Your task to perform on an android device: Clear all items from cart on ebay. Add "usb-b" to the cart on ebay, then select checkout. Image 0: 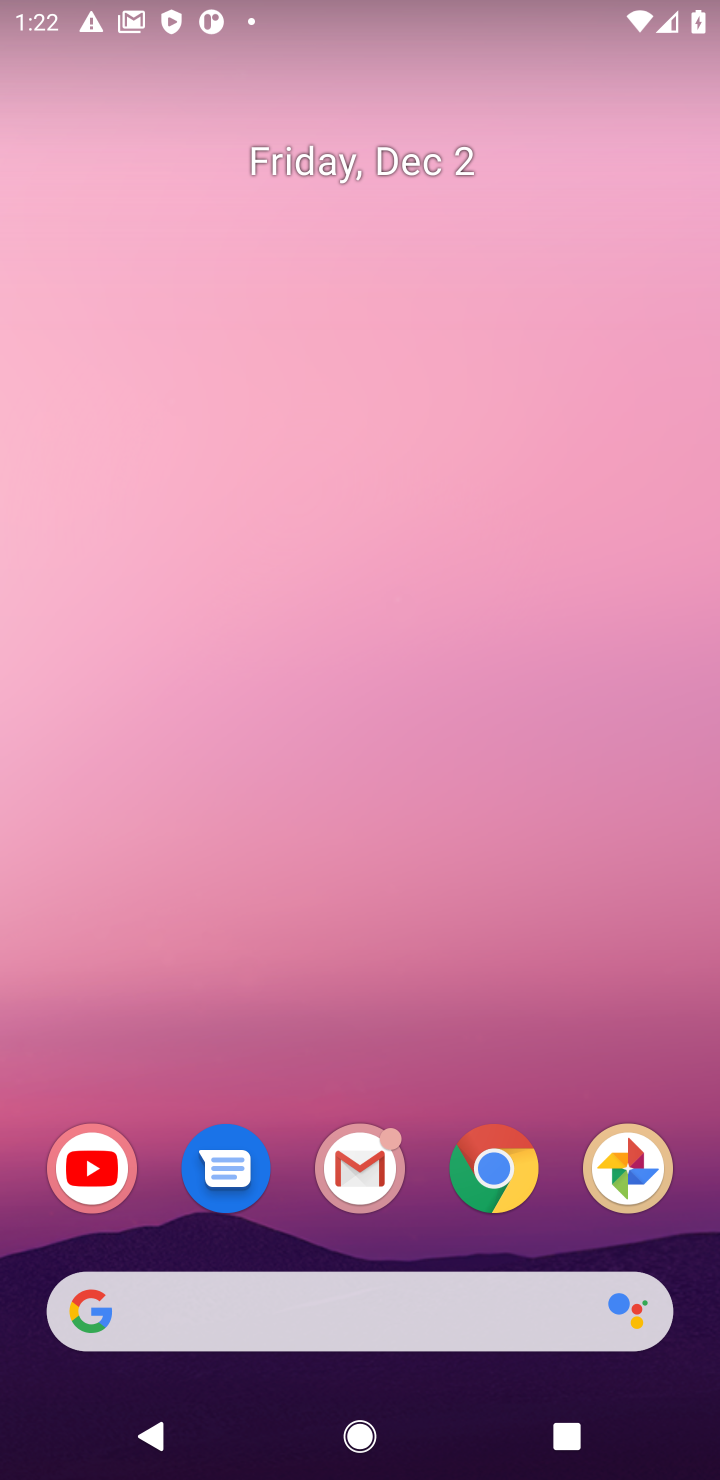
Step 0: click (494, 1180)
Your task to perform on an android device: Clear all items from cart on ebay. Add "usb-b" to the cart on ebay, then select checkout. Image 1: 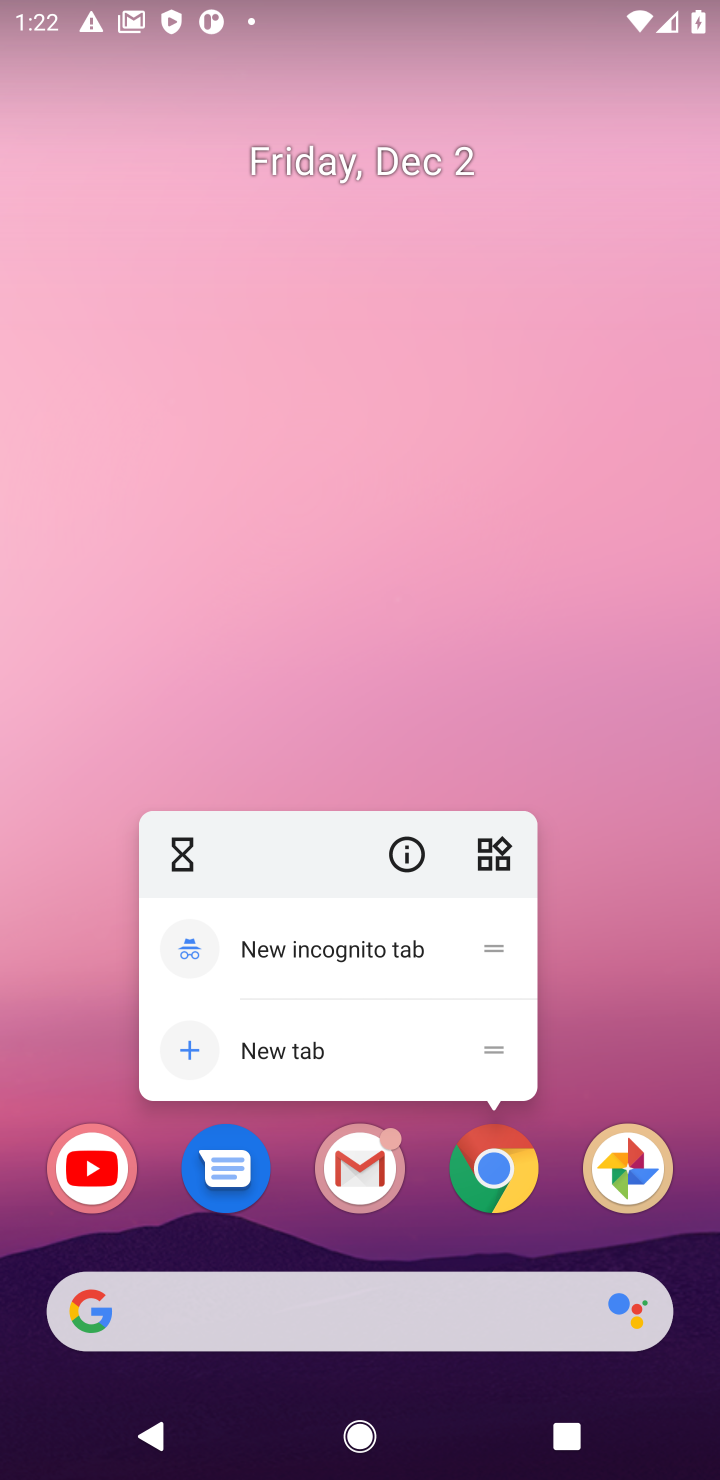
Step 1: click (494, 1180)
Your task to perform on an android device: Clear all items from cart on ebay. Add "usb-b" to the cart on ebay, then select checkout. Image 2: 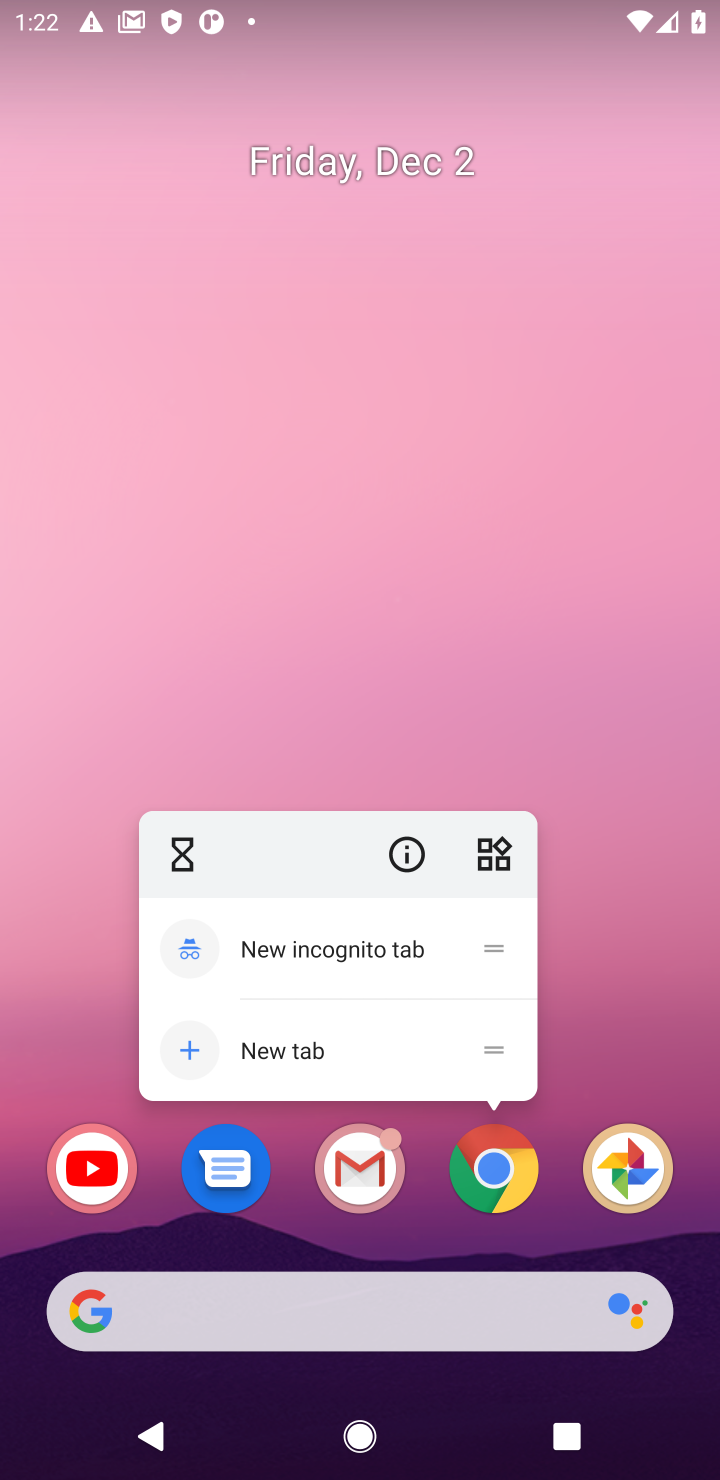
Step 2: click (494, 1180)
Your task to perform on an android device: Clear all items from cart on ebay. Add "usb-b" to the cart on ebay, then select checkout. Image 3: 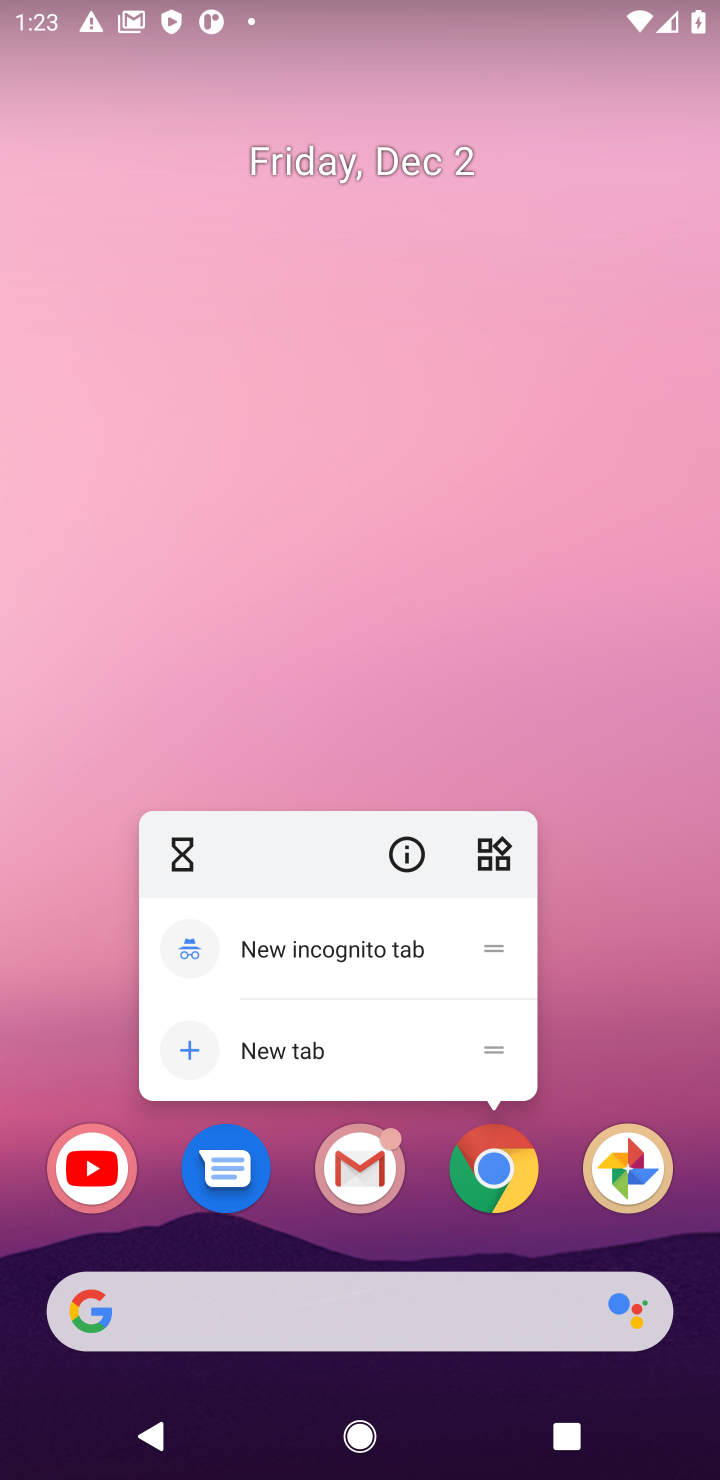
Step 3: click (655, 1067)
Your task to perform on an android device: Clear all items from cart on ebay. Add "usb-b" to the cart on ebay, then select checkout. Image 4: 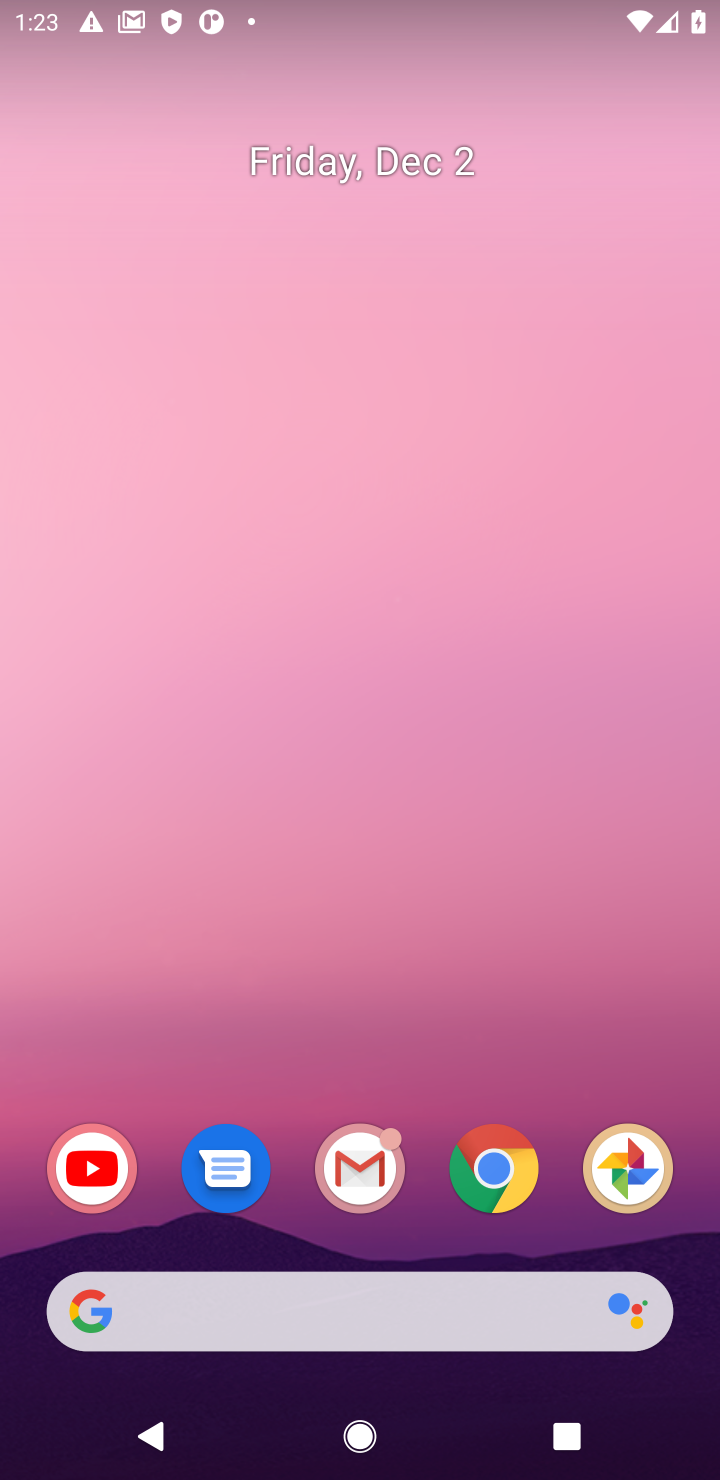
Step 4: click (504, 1164)
Your task to perform on an android device: Clear all items from cart on ebay. Add "usb-b" to the cart on ebay, then select checkout. Image 5: 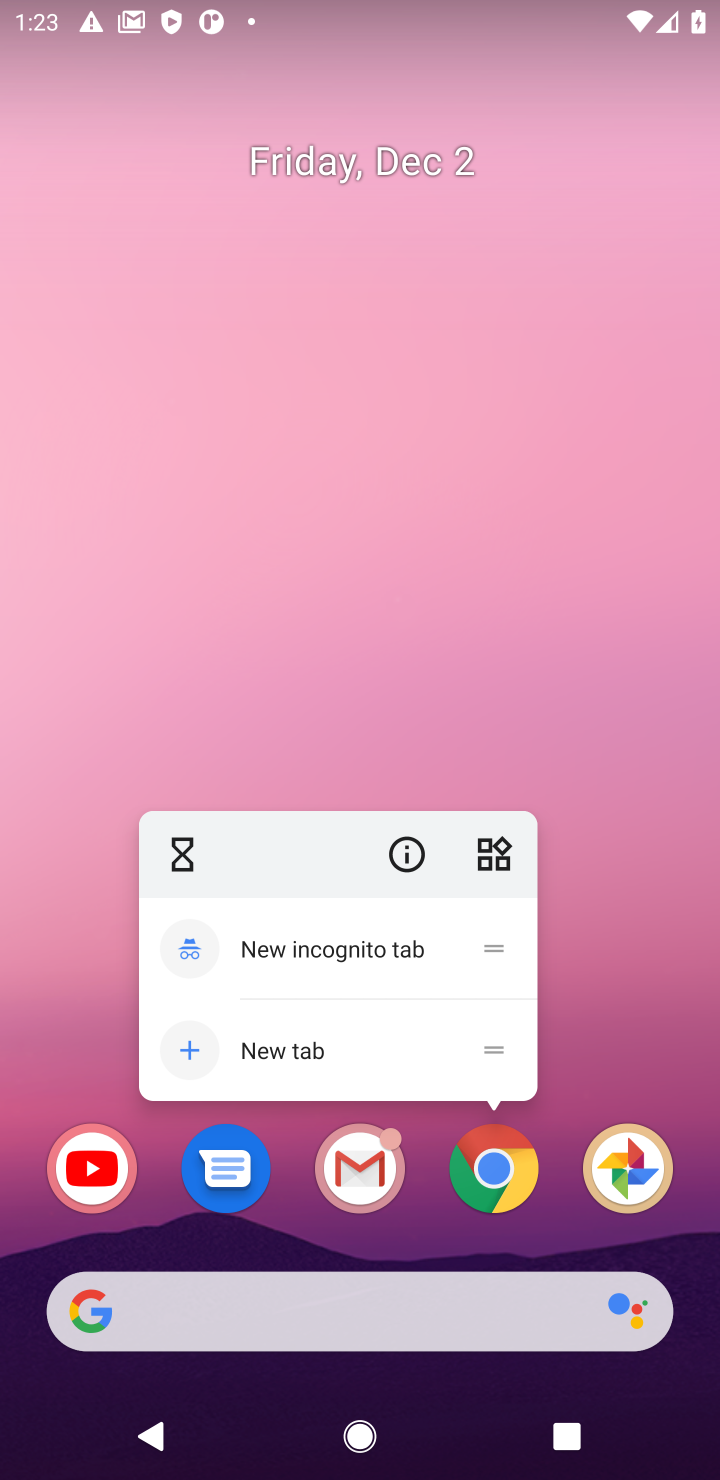
Step 5: click (504, 1164)
Your task to perform on an android device: Clear all items from cart on ebay. Add "usb-b" to the cart on ebay, then select checkout. Image 6: 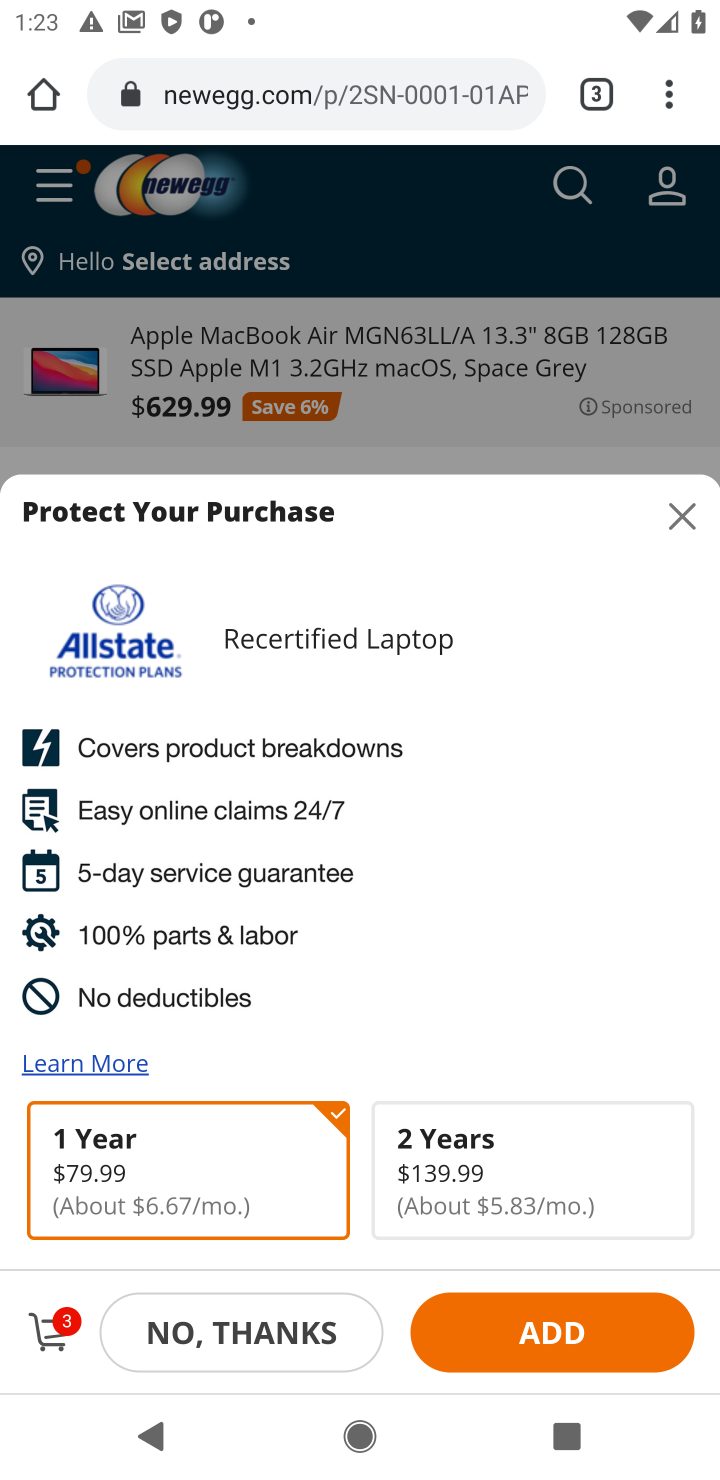
Step 6: click (283, 99)
Your task to perform on an android device: Clear all items from cart on ebay. Add "usb-b" to the cart on ebay, then select checkout. Image 7: 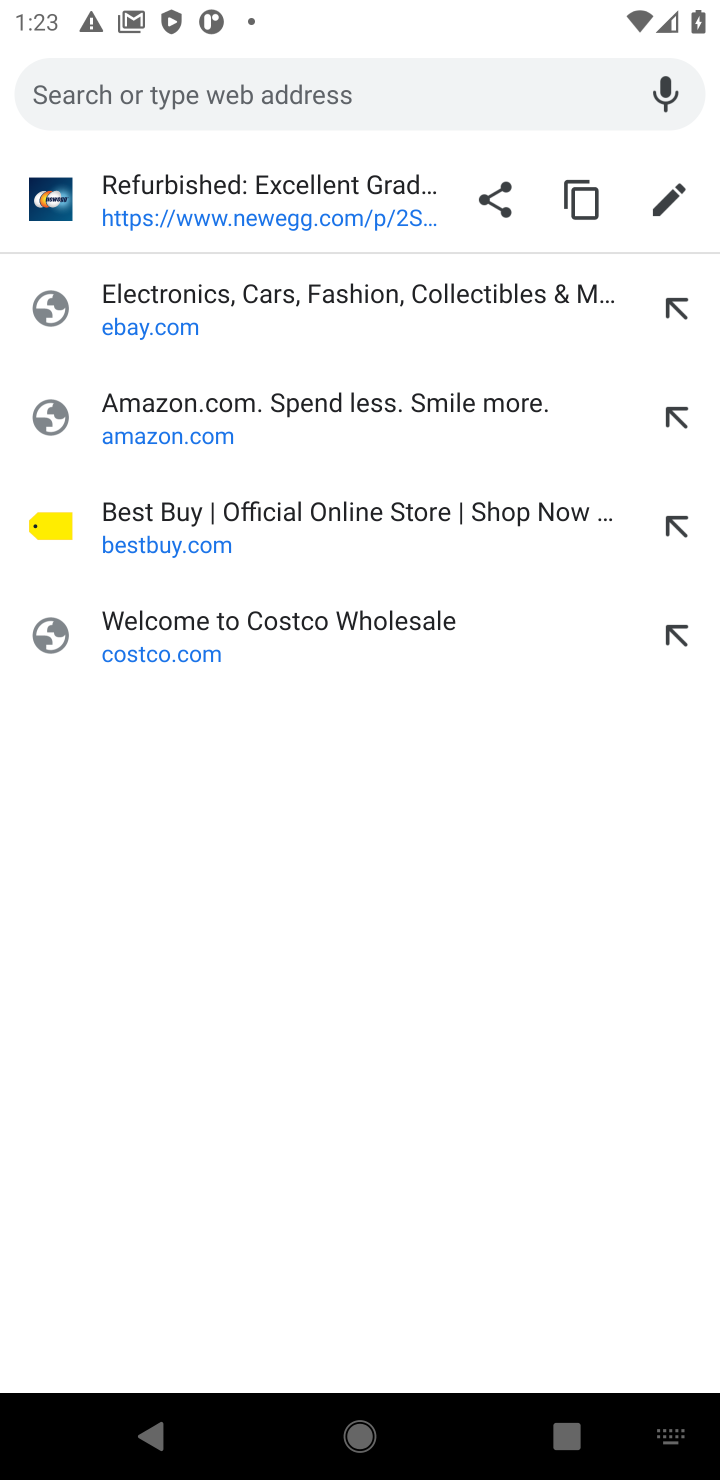
Step 7: click (157, 325)
Your task to perform on an android device: Clear all items from cart on ebay. Add "usb-b" to the cart on ebay, then select checkout. Image 8: 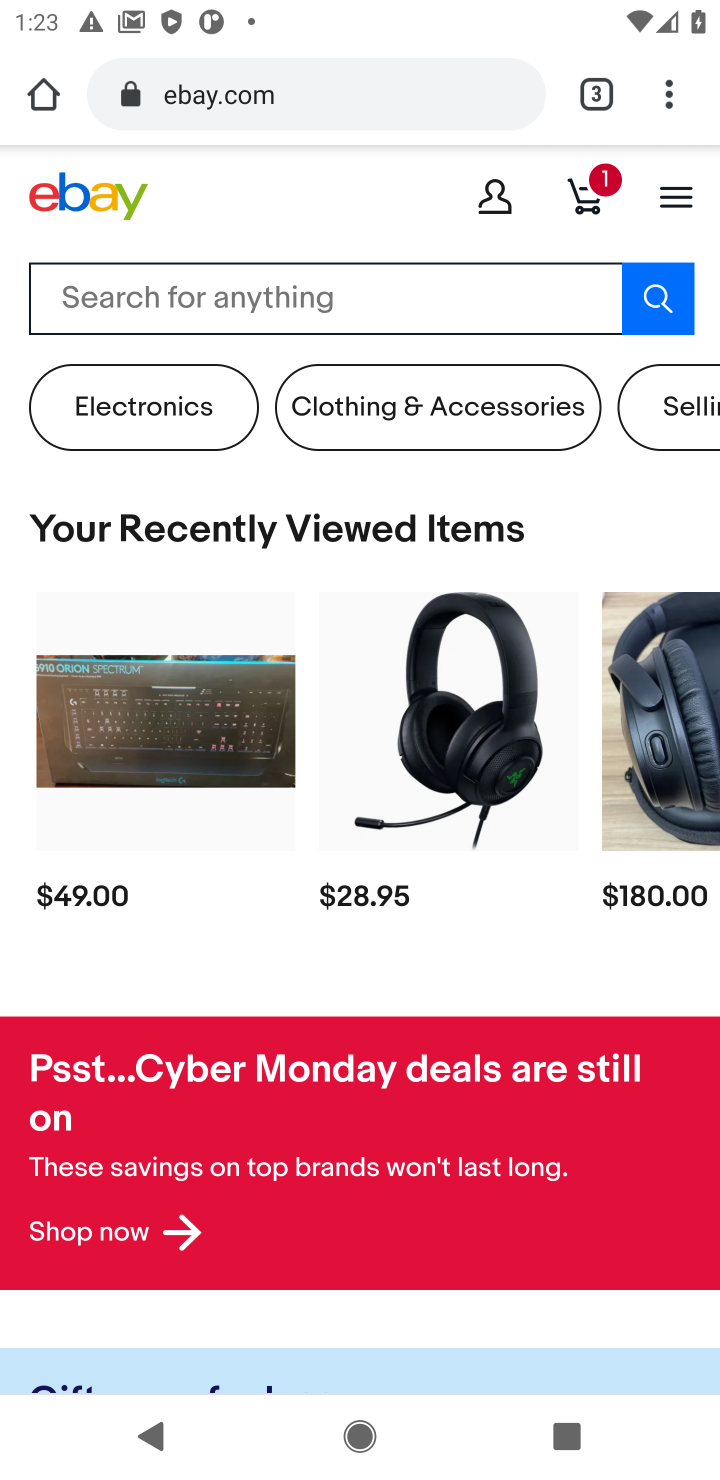
Step 8: click (592, 191)
Your task to perform on an android device: Clear all items from cart on ebay. Add "usb-b" to the cart on ebay, then select checkout. Image 9: 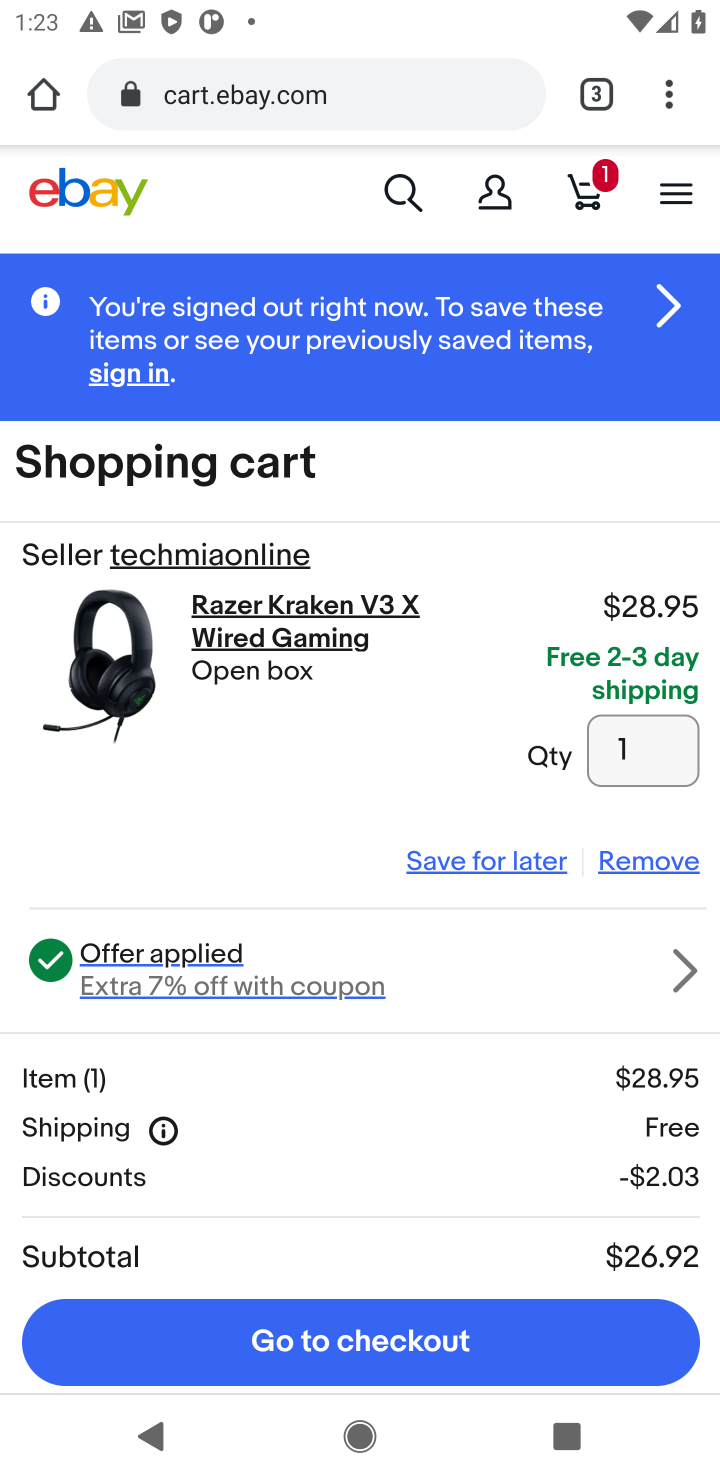
Step 9: click (628, 864)
Your task to perform on an android device: Clear all items from cart on ebay. Add "usb-b" to the cart on ebay, then select checkout. Image 10: 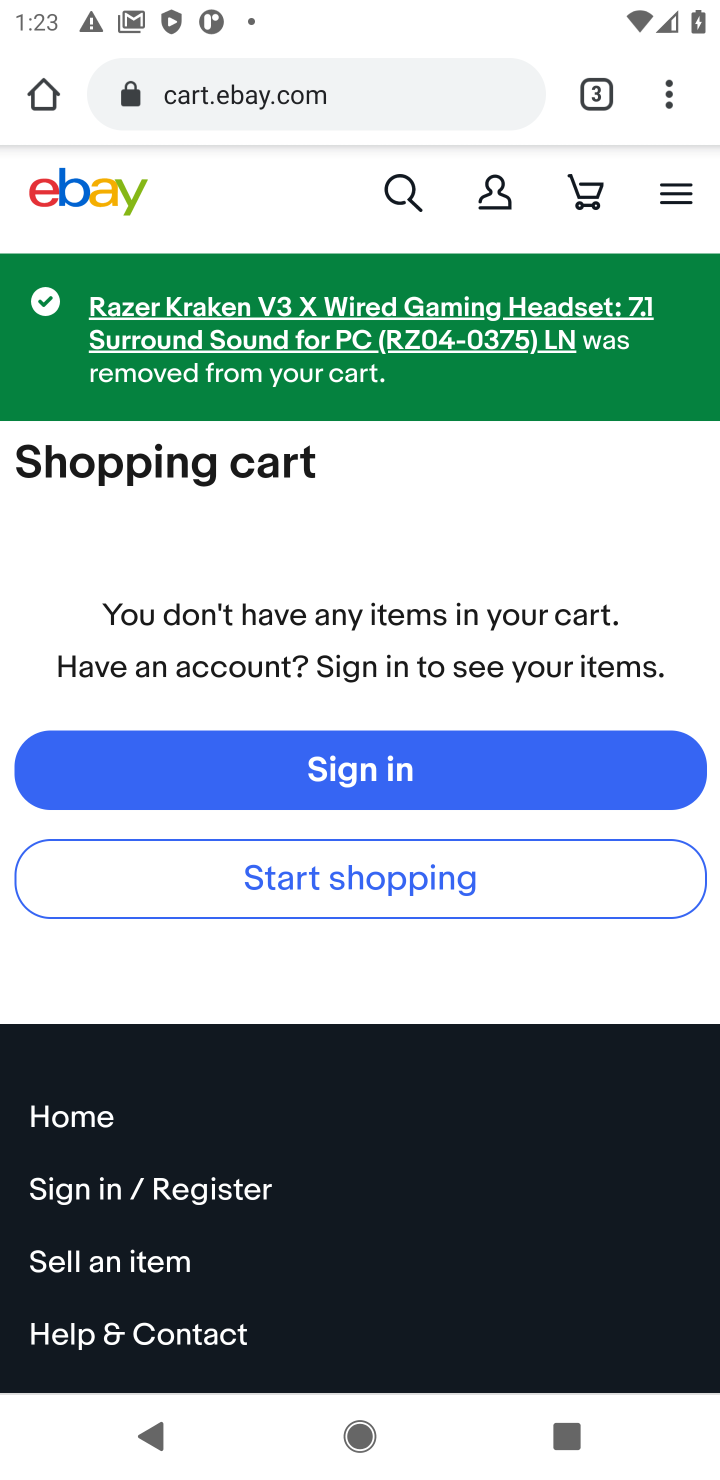
Step 10: click (398, 185)
Your task to perform on an android device: Clear all items from cart on ebay. Add "usb-b" to the cart on ebay, then select checkout. Image 11: 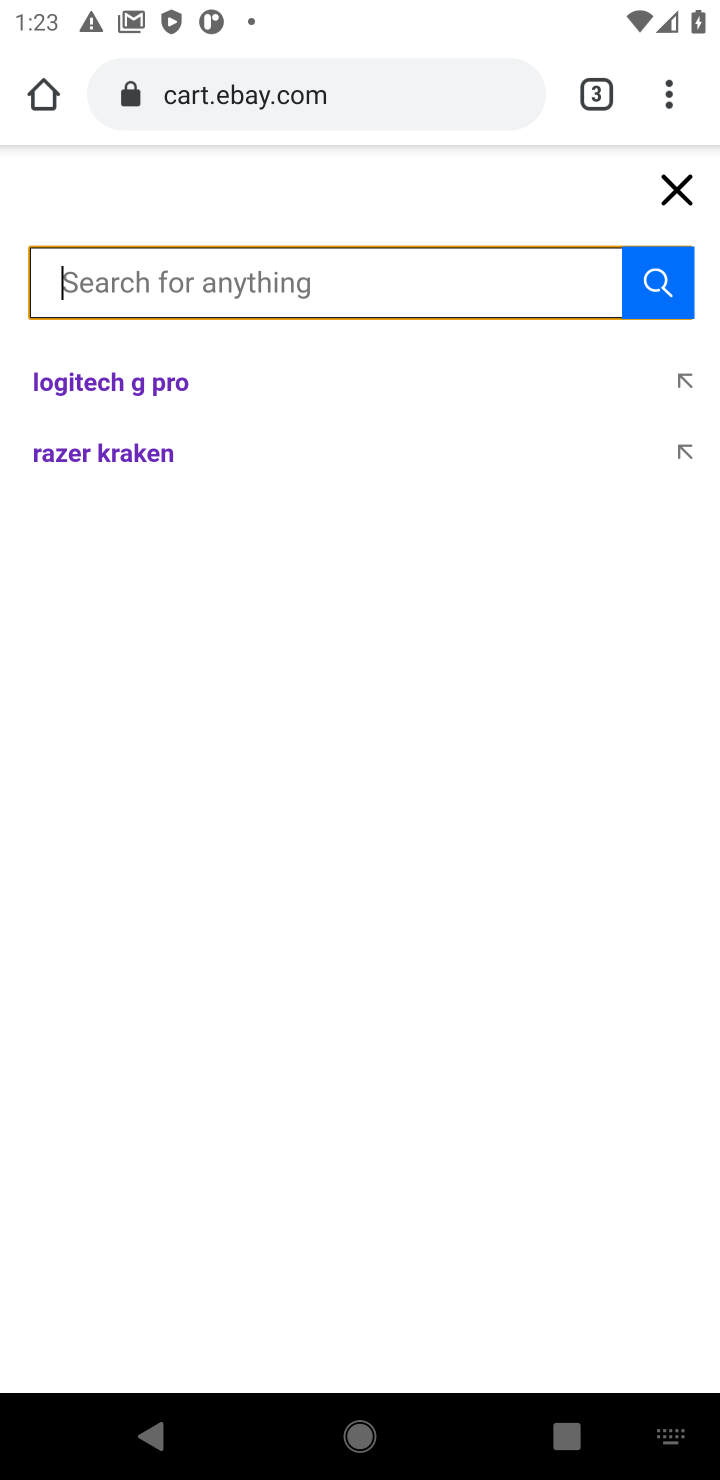
Step 11: type "usb-b"
Your task to perform on an android device: Clear all items from cart on ebay. Add "usb-b" to the cart on ebay, then select checkout. Image 12: 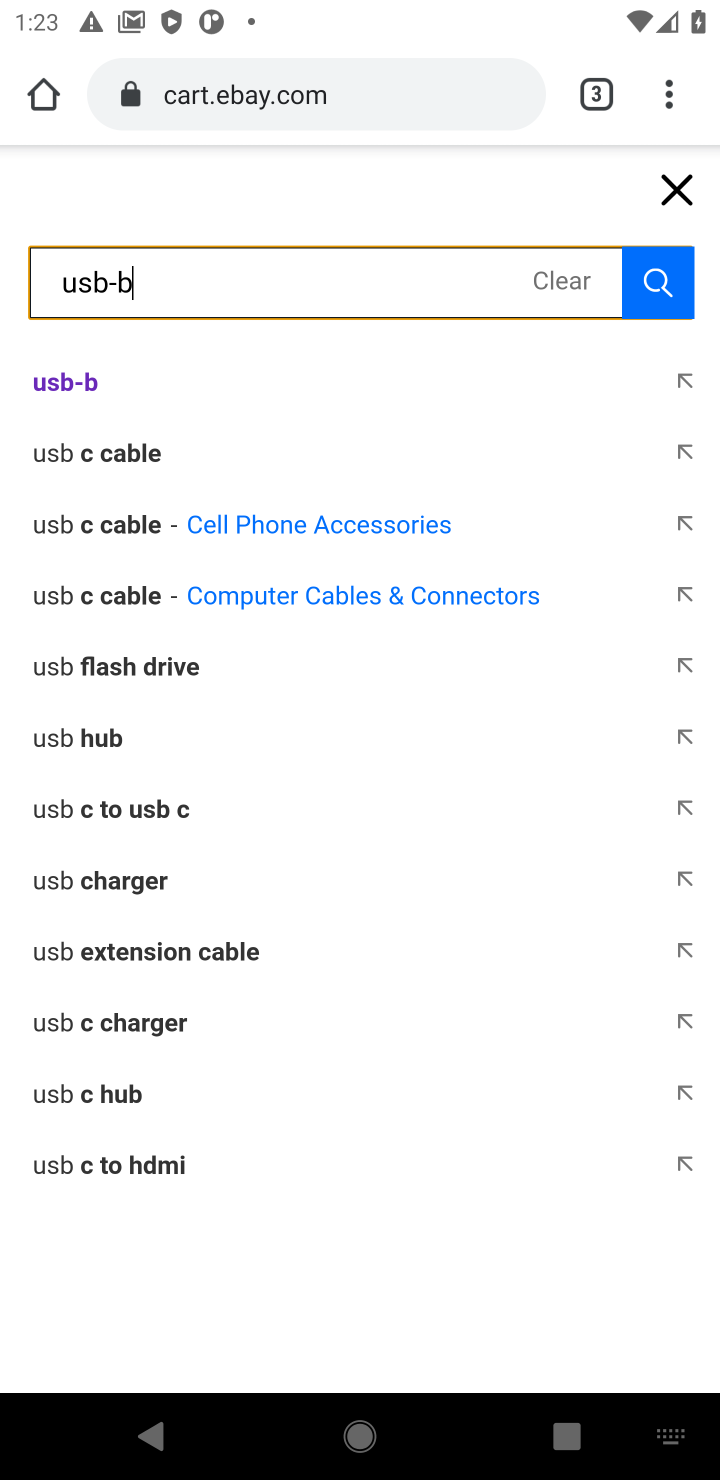
Step 12: click (76, 386)
Your task to perform on an android device: Clear all items from cart on ebay. Add "usb-b" to the cart on ebay, then select checkout. Image 13: 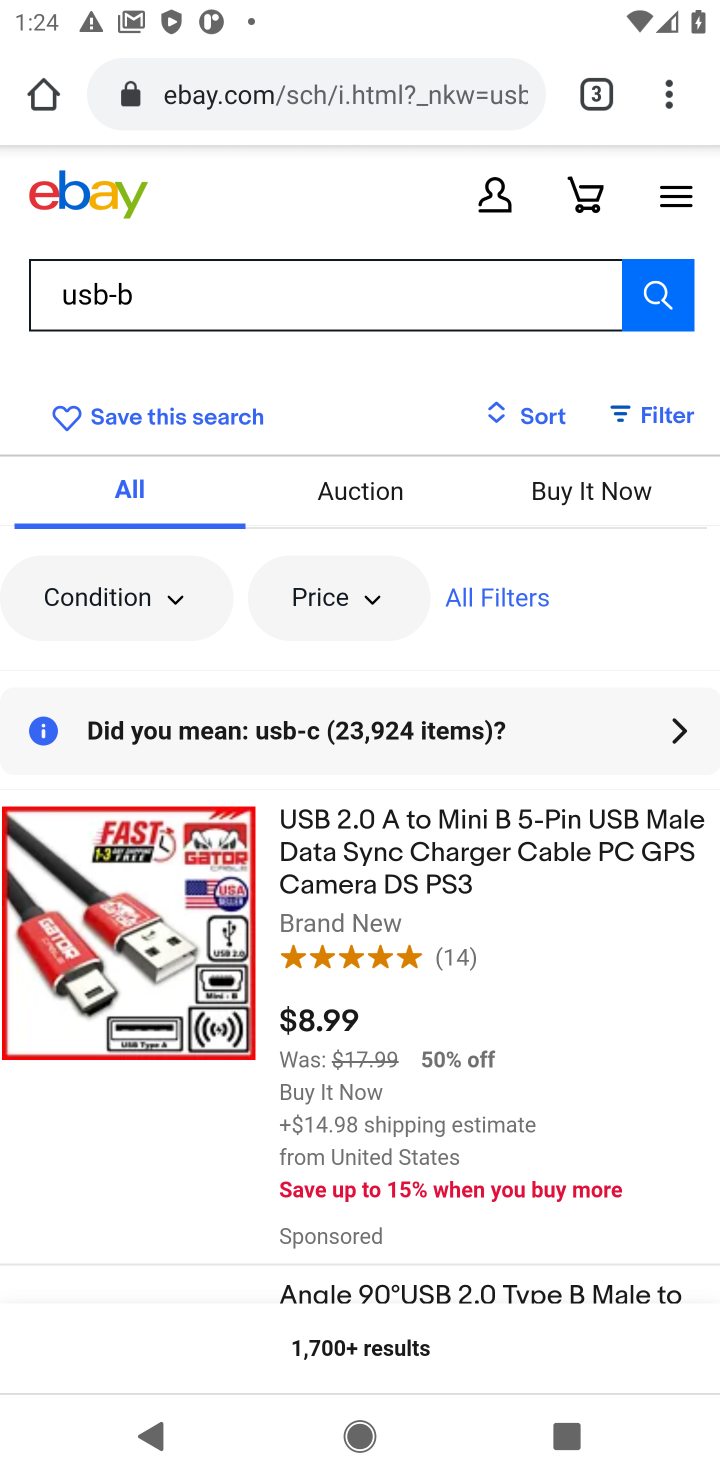
Step 13: drag from (389, 1026) to (407, 762)
Your task to perform on an android device: Clear all items from cart on ebay. Add "usb-b" to the cart on ebay, then select checkout. Image 14: 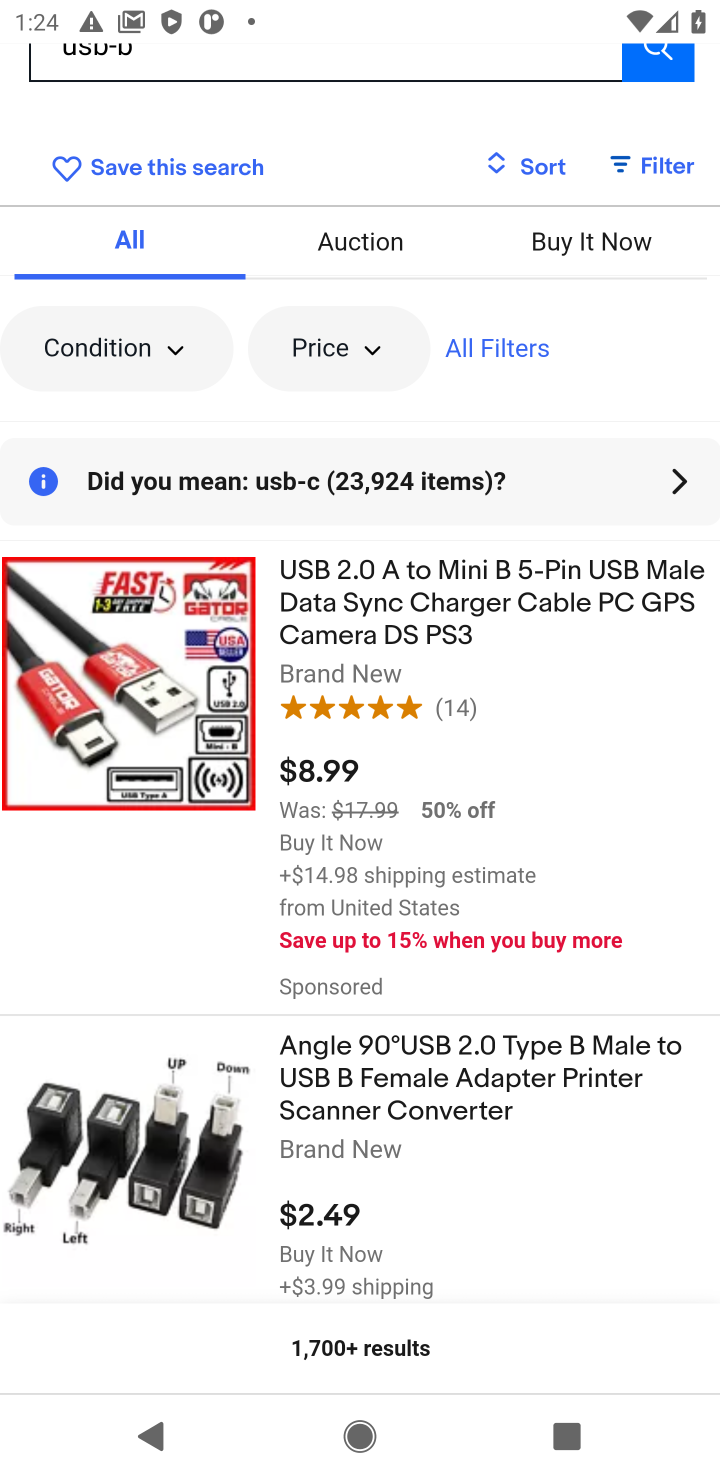
Step 14: click (369, 585)
Your task to perform on an android device: Clear all items from cart on ebay. Add "usb-b" to the cart on ebay, then select checkout. Image 15: 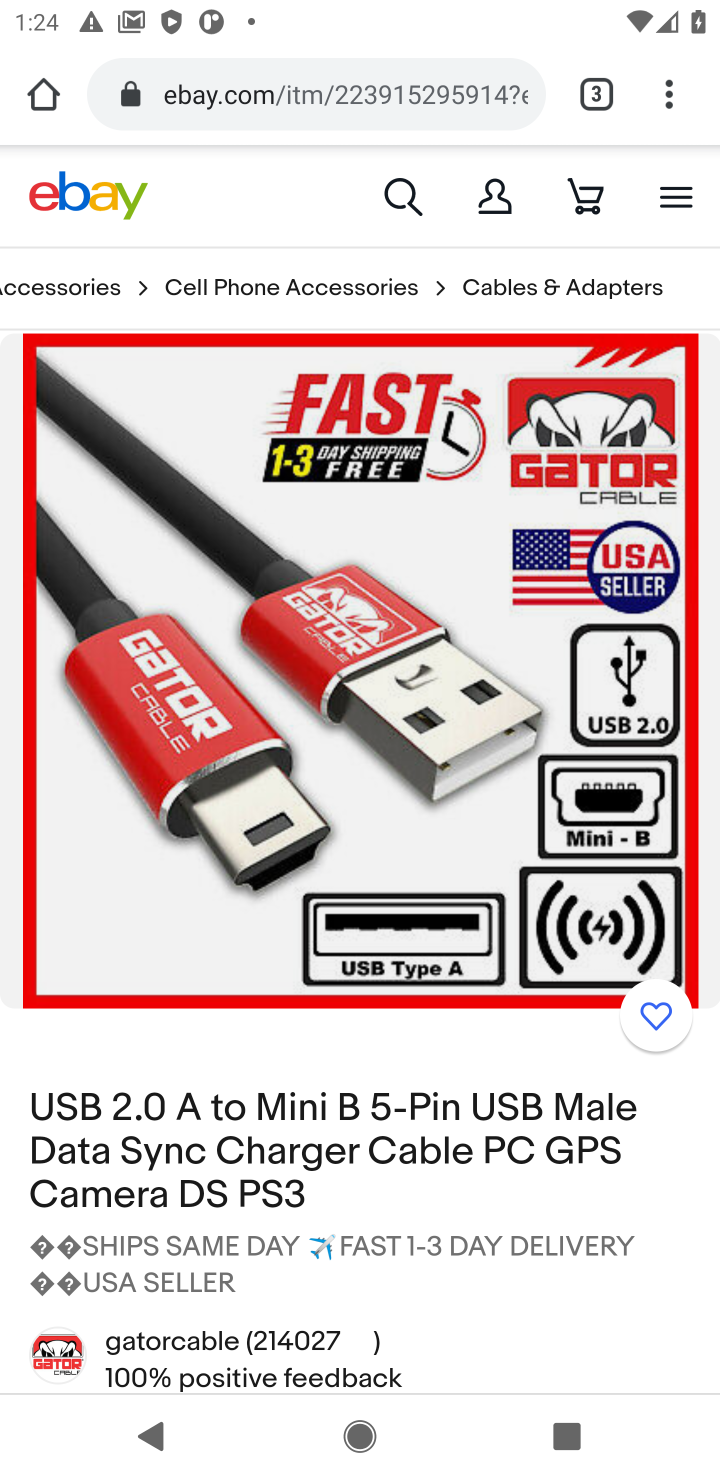
Step 15: drag from (391, 956) to (385, 553)
Your task to perform on an android device: Clear all items from cart on ebay. Add "usb-b" to the cart on ebay, then select checkout. Image 16: 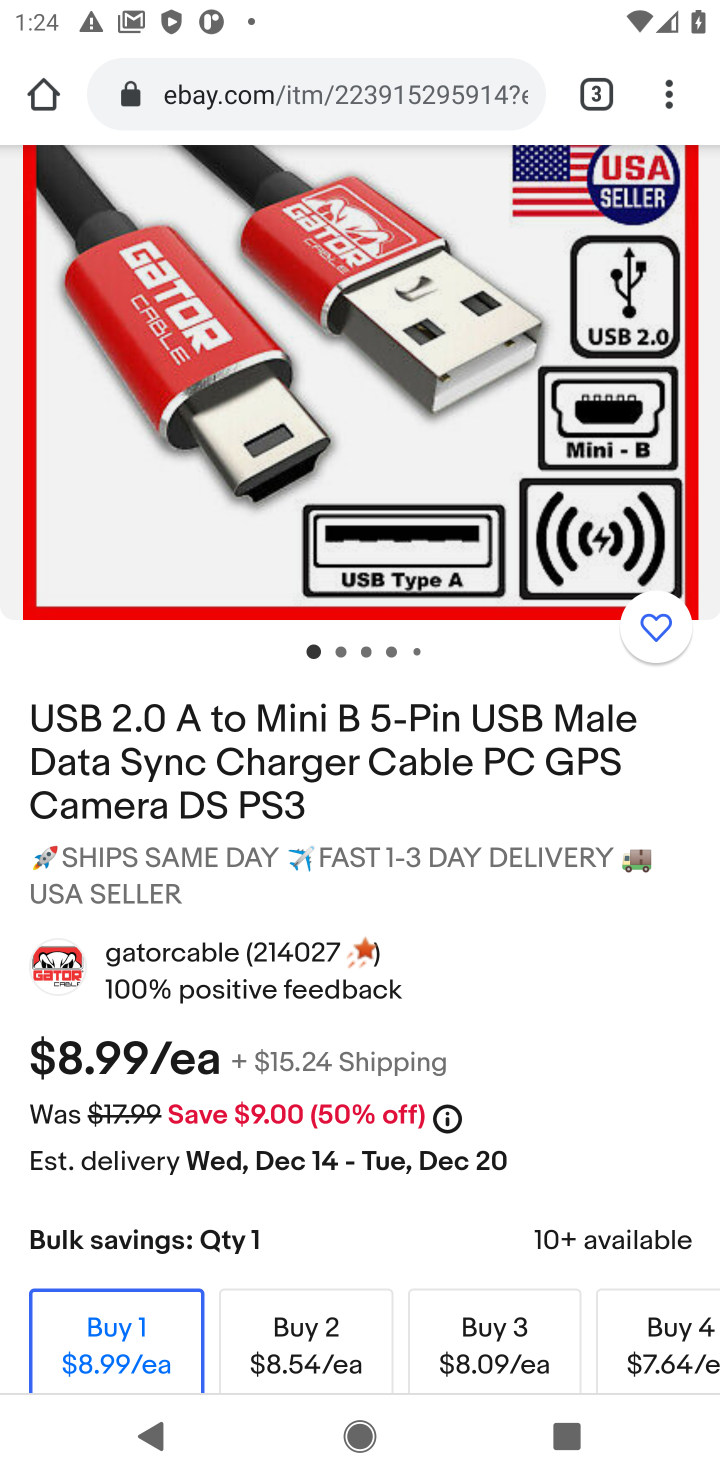
Step 16: drag from (443, 1120) to (409, 624)
Your task to perform on an android device: Clear all items from cart on ebay. Add "usb-b" to the cart on ebay, then select checkout. Image 17: 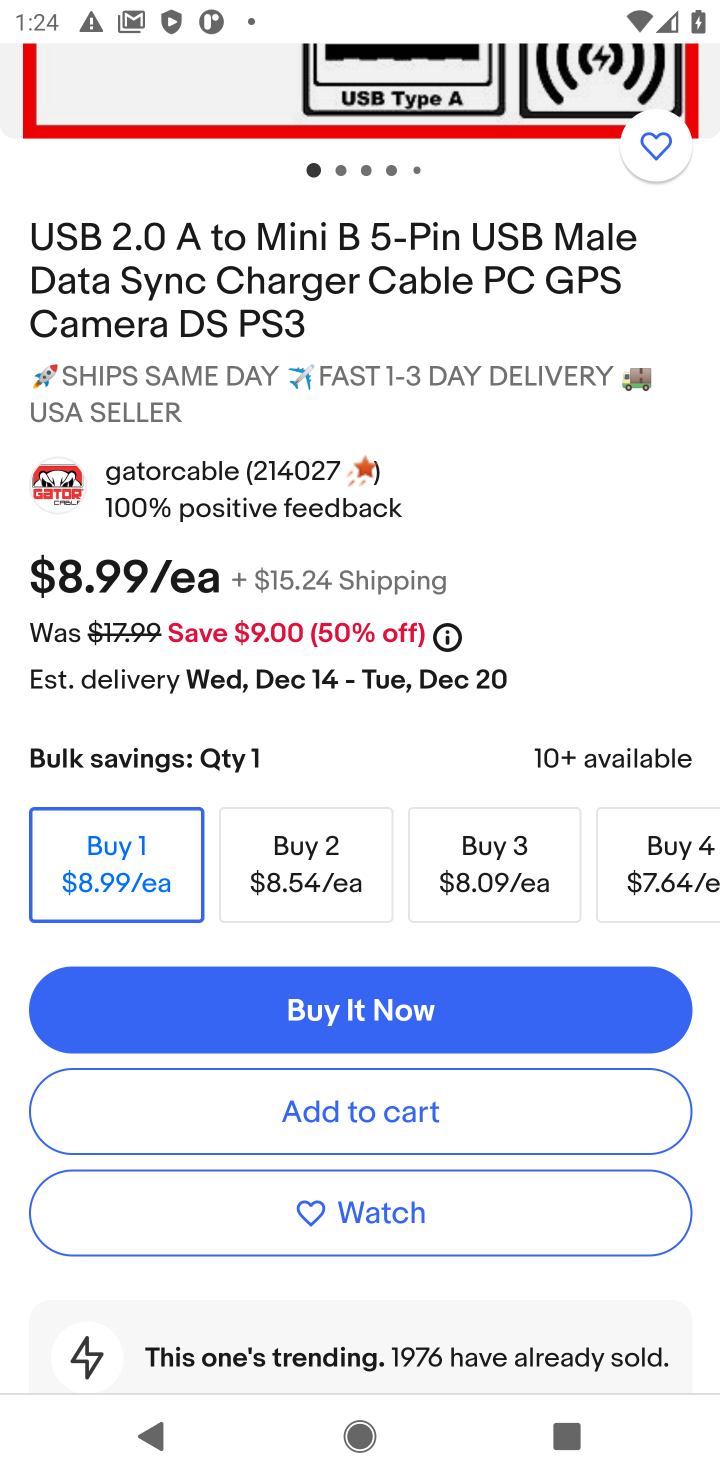
Step 17: click (322, 1106)
Your task to perform on an android device: Clear all items from cart on ebay. Add "usb-b" to the cart on ebay, then select checkout. Image 18: 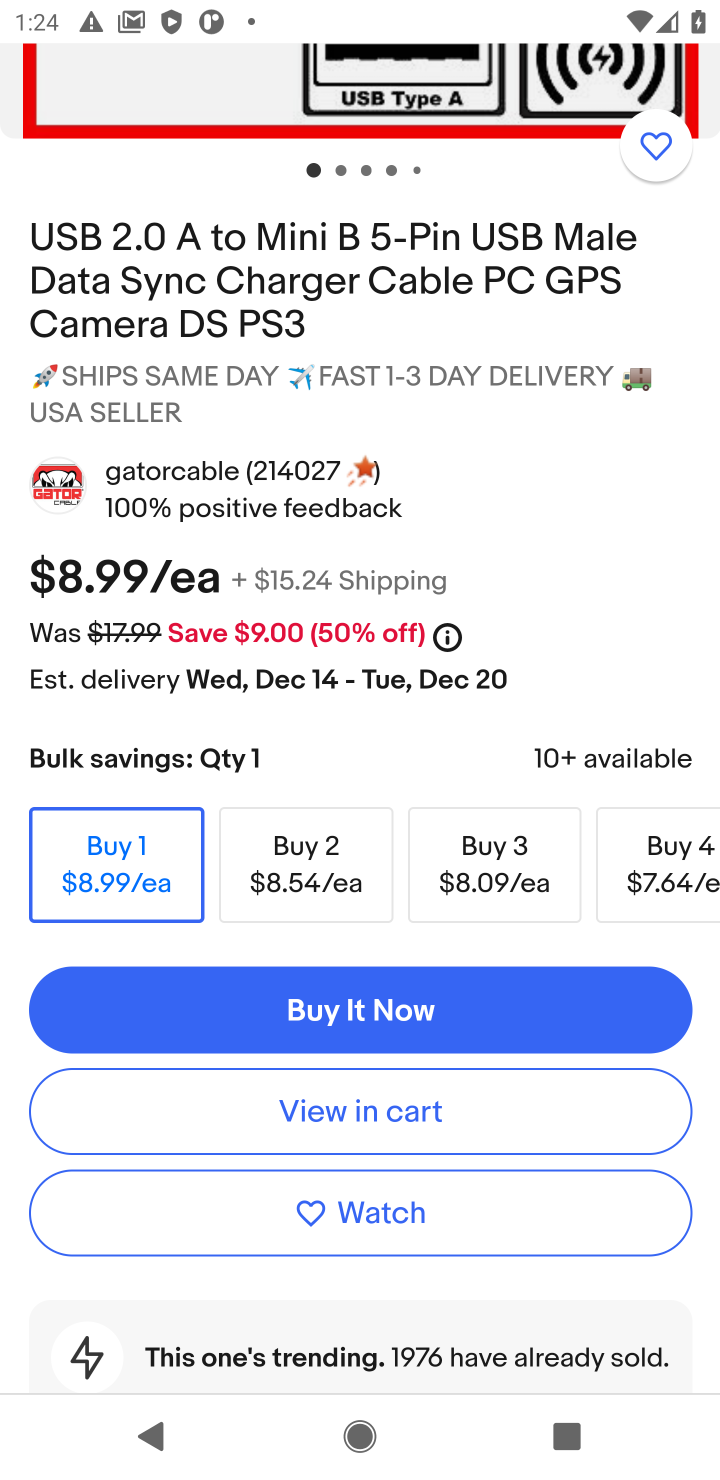
Step 18: click (322, 1106)
Your task to perform on an android device: Clear all items from cart on ebay. Add "usb-b" to the cart on ebay, then select checkout. Image 19: 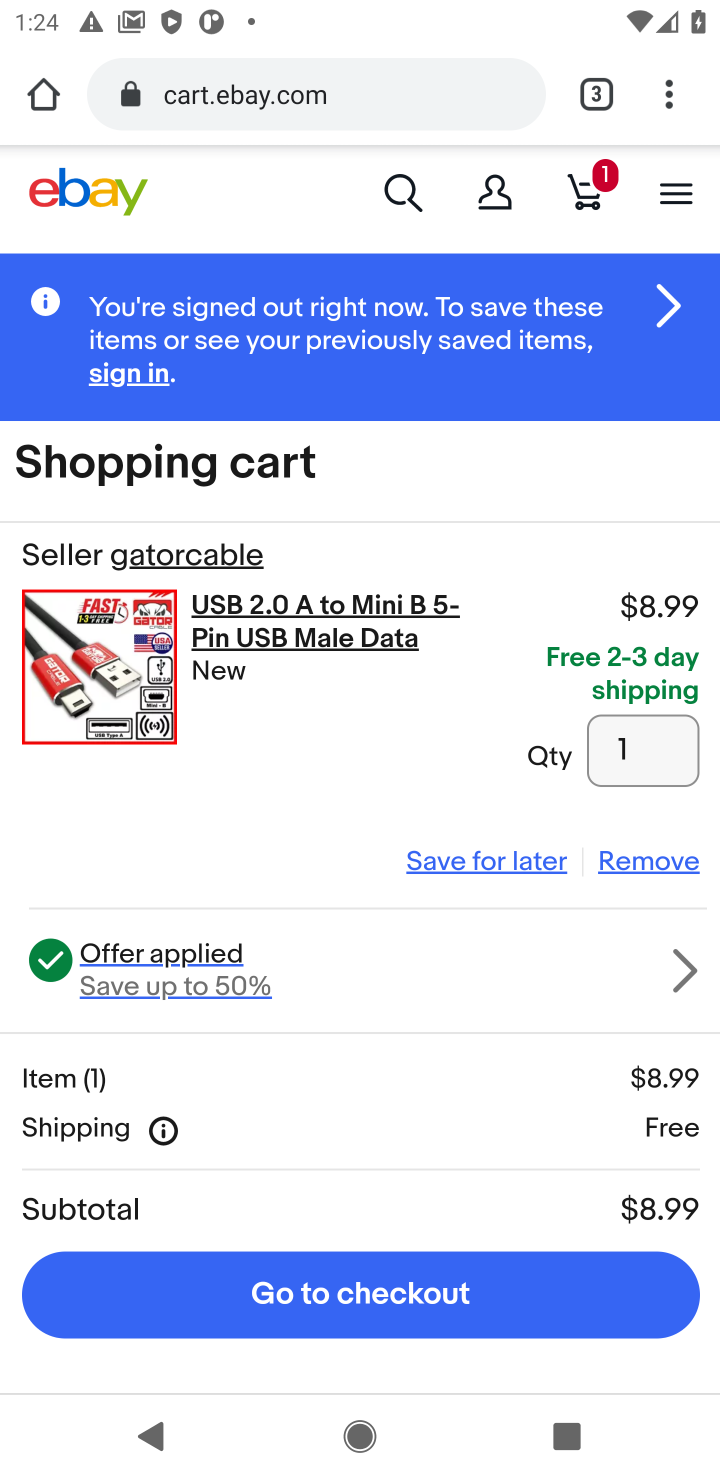
Step 19: click (349, 1296)
Your task to perform on an android device: Clear all items from cart on ebay. Add "usb-b" to the cart on ebay, then select checkout. Image 20: 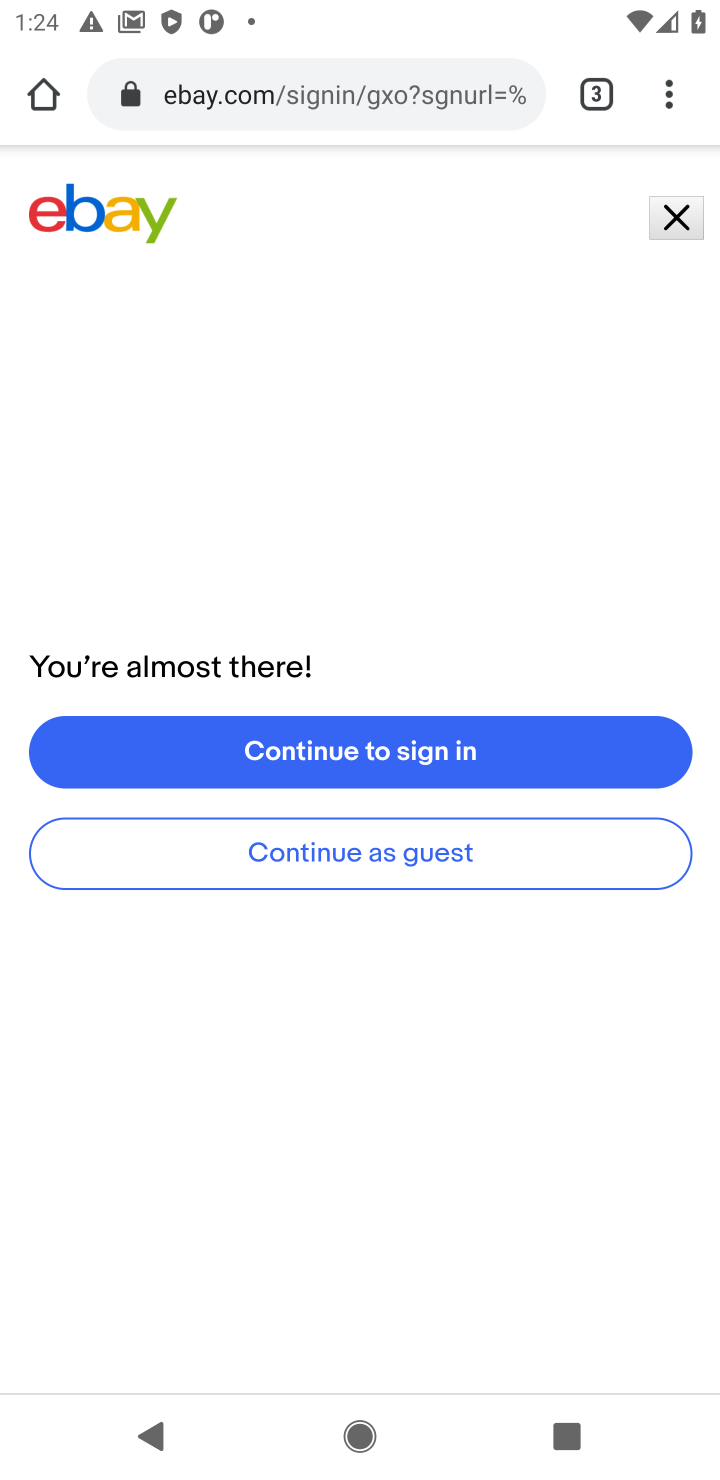
Step 20: task complete